Your task to perform on an android device: Open Google Image 0: 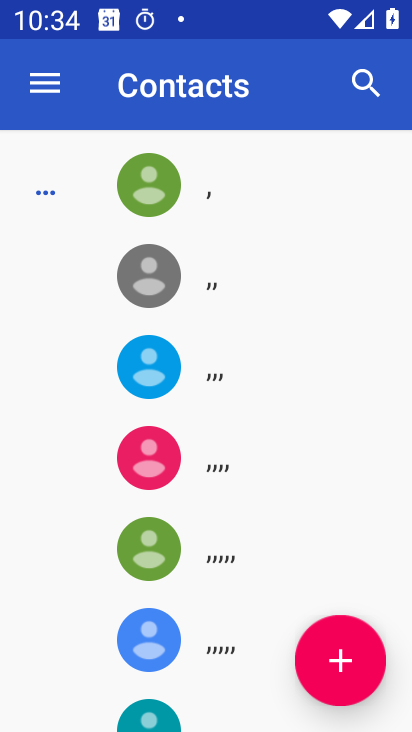
Step 0: press home button
Your task to perform on an android device: Open Google Image 1: 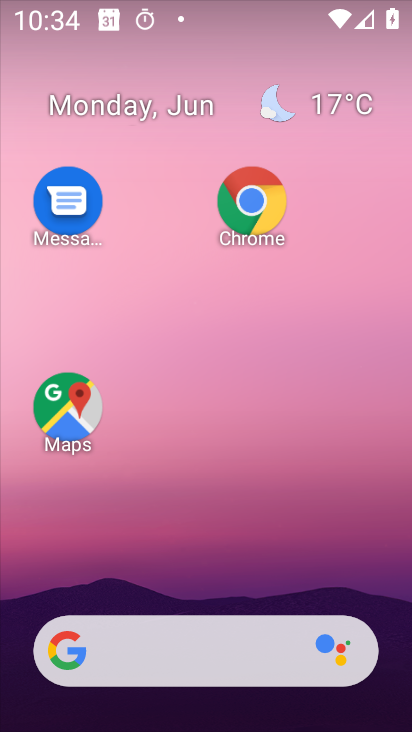
Step 1: click (147, 646)
Your task to perform on an android device: Open Google Image 2: 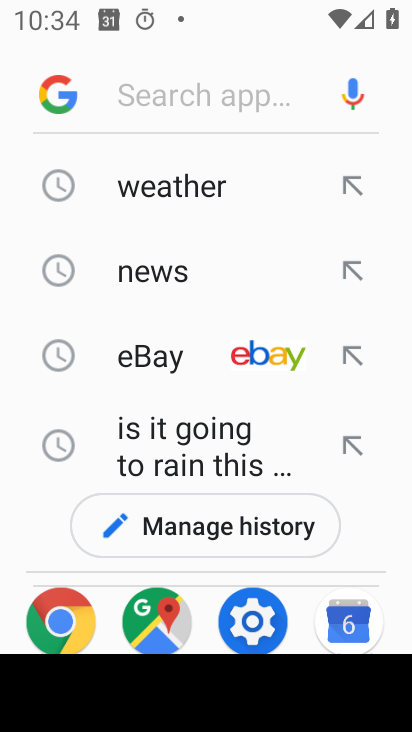
Step 2: task complete